Your task to perform on an android device: Go to network settings Image 0: 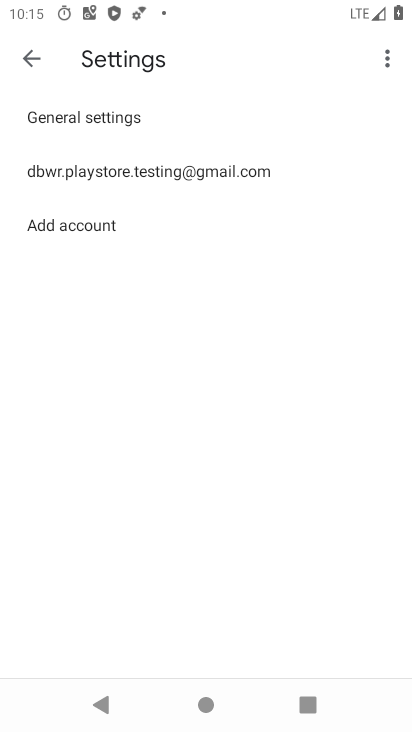
Step 0: press home button
Your task to perform on an android device: Go to network settings Image 1: 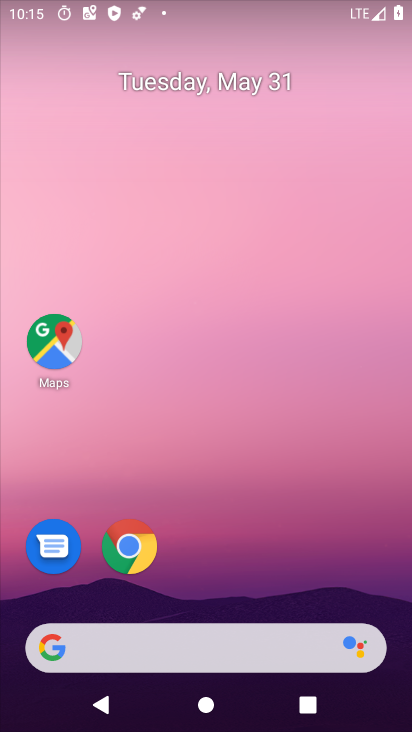
Step 1: drag from (324, 591) to (290, 207)
Your task to perform on an android device: Go to network settings Image 2: 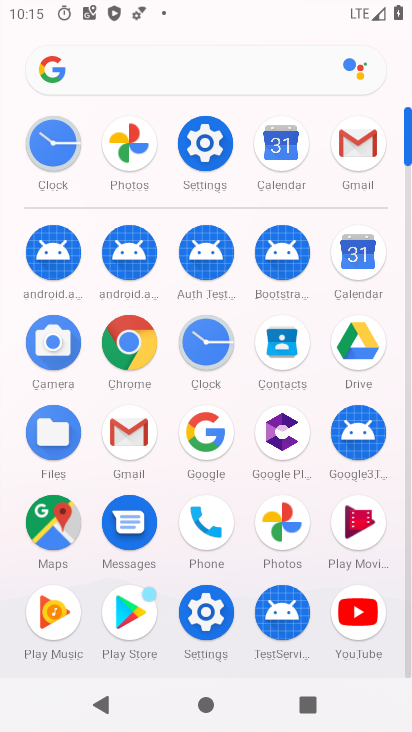
Step 2: click (194, 150)
Your task to perform on an android device: Go to network settings Image 3: 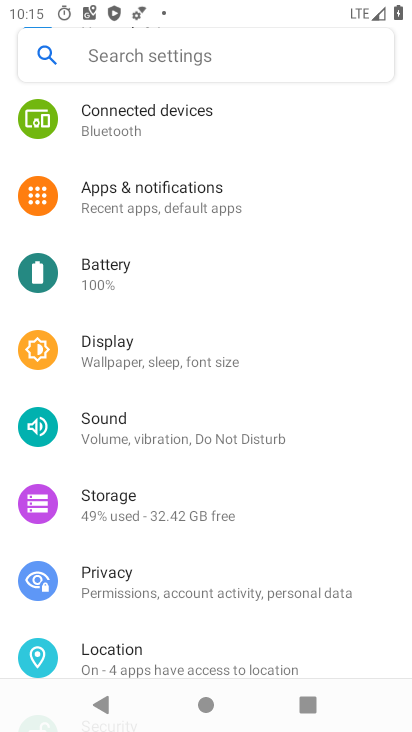
Step 3: drag from (208, 139) to (217, 497)
Your task to perform on an android device: Go to network settings Image 4: 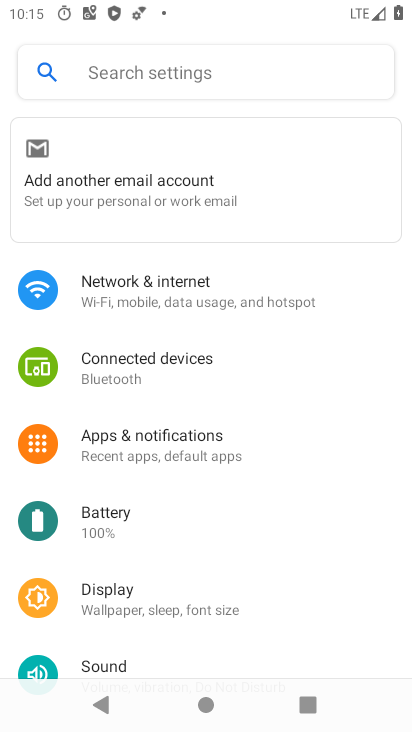
Step 4: click (217, 287)
Your task to perform on an android device: Go to network settings Image 5: 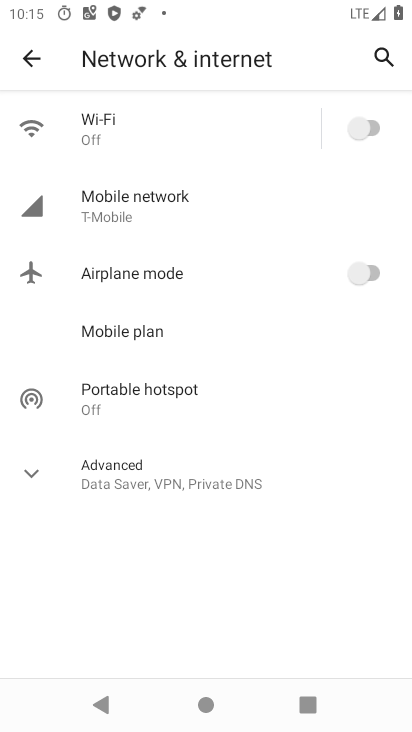
Step 5: task complete